Your task to perform on an android device: turn on the 24-hour format for clock Image 0: 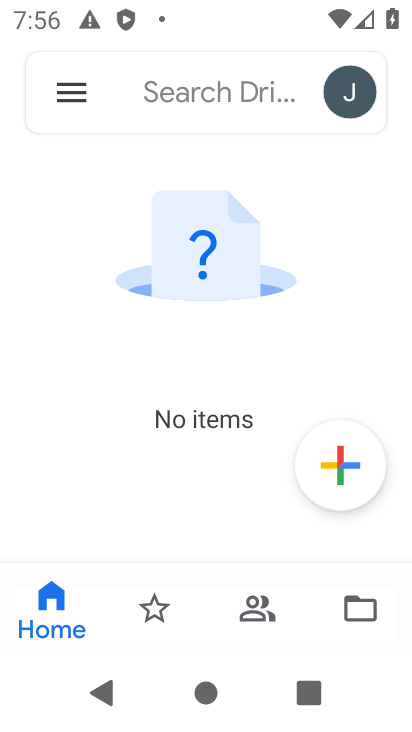
Step 0: press home button
Your task to perform on an android device: turn on the 24-hour format for clock Image 1: 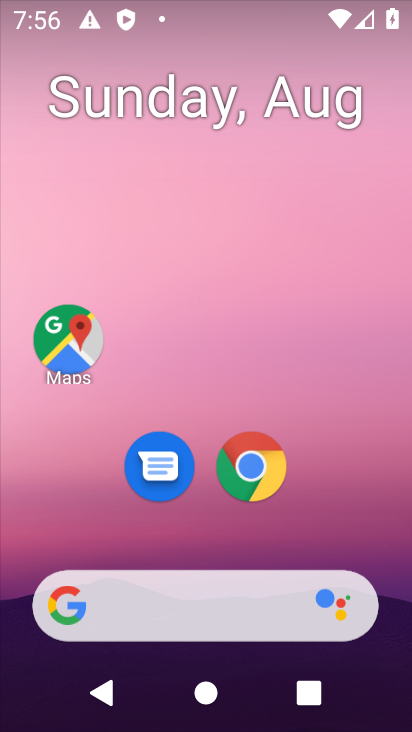
Step 1: drag from (334, 539) to (276, 45)
Your task to perform on an android device: turn on the 24-hour format for clock Image 2: 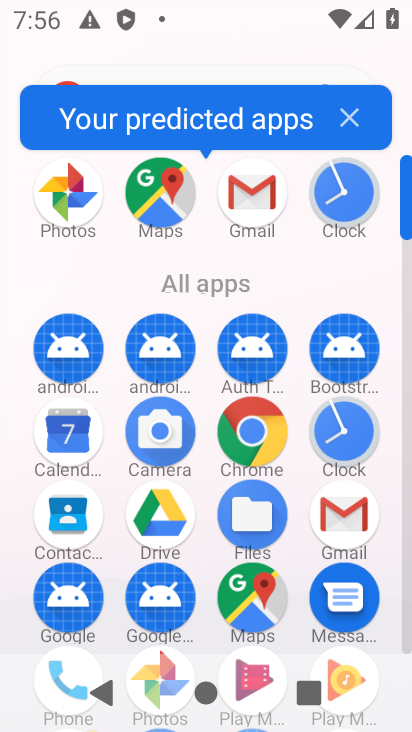
Step 2: click (338, 161)
Your task to perform on an android device: turn on the 24-hour format for clock Image 3: 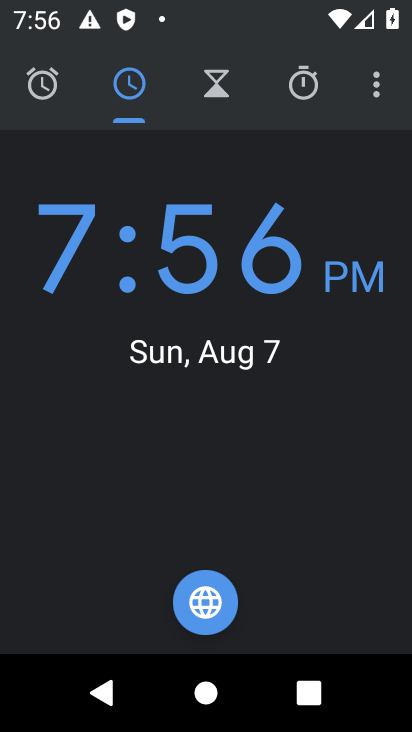
Step 3: click (382, 83)
Your task to perform on an android device: turn on the 24-hour format for clock Image 4: 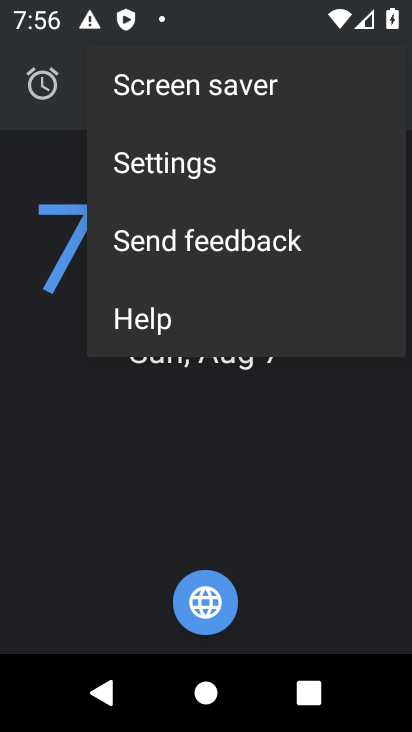
Step 4: click (247, 163)
Your task to perform on an android device: turn on the 24-hour format for clock Image 5: 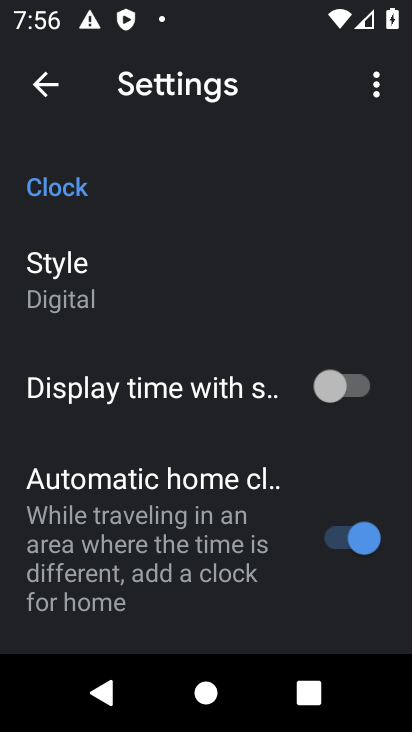
Step 5: drag from (207, 643) to (192, 370)
Your task to perform on an android device: turn on the 24-hour format for clock Image 6: 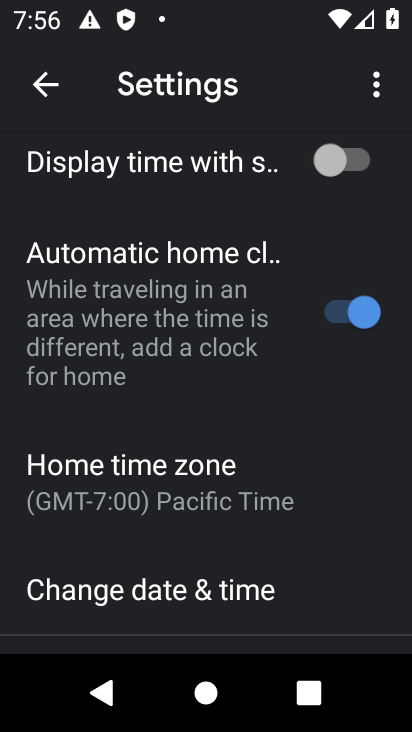
Step 6: drag from (253, 566) to (210, 410)
Your task to perform on an android device: turn on the 24-hour format for clock Image 7: 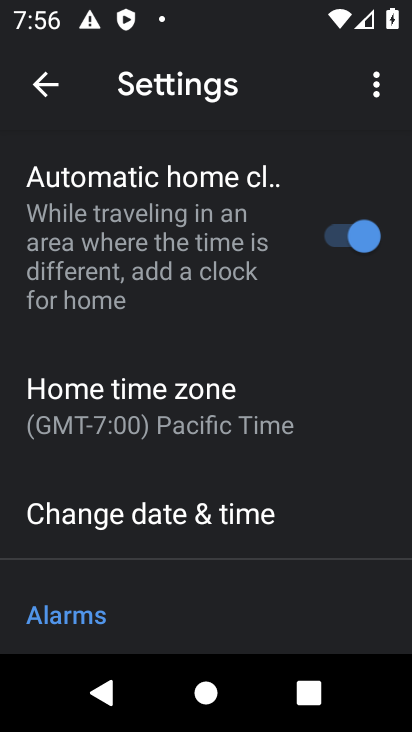
Step 7: click (242, 518)
Your task to perform on an android device: turn on the 24-hour format for clock Image 8: 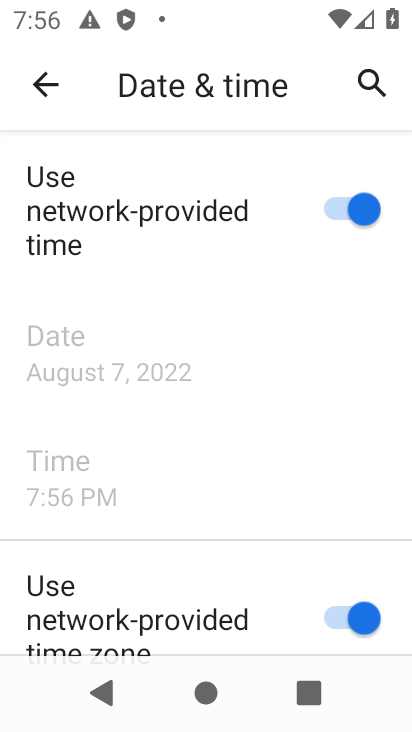
Step 8: drag from (242, 518) to (195, 199)
Your task to perform on an android device: turn on the 24-hour format for clock Image 9: 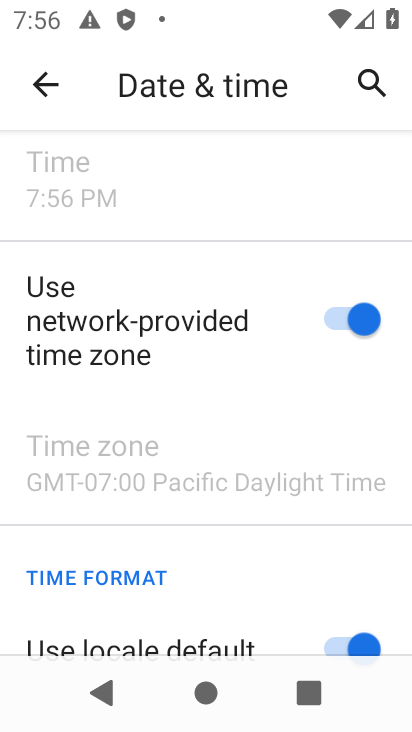
Step 9: drag from (303, 570) to (207, 223)
Your task to perform on an android device: turn on the 24-hour format for clock Image 10: 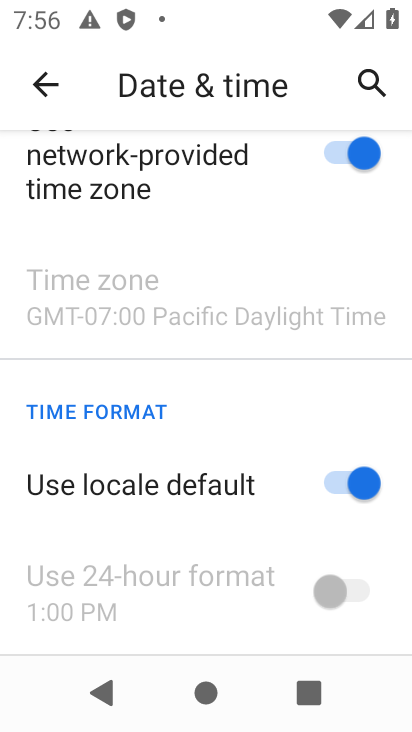
Step 10: click (348, 481)
Your task to perform on an android device: turn on the 24-hour format for clock Image 11: 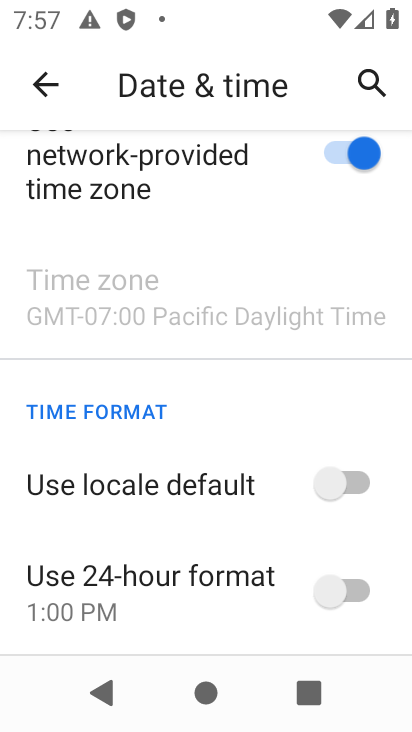
Step 11: click (341, 588)
Your task to perform on an android device: turn on the 24-hour format for clock Image 12: 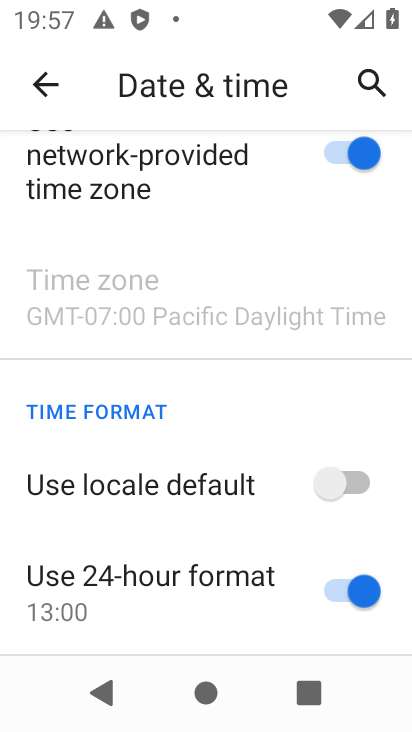
Step 12: task complete